Your task to perform on an android device: Open calendar and show me the third week of next month Image 0: 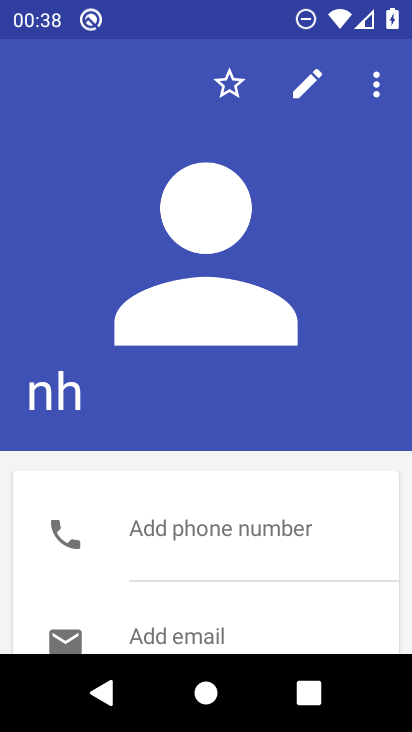
Step 0: drag from (224, 615) to (255, 384)
Your task to perform on an android device: Open calendar and show me the third week of next month Image 1: 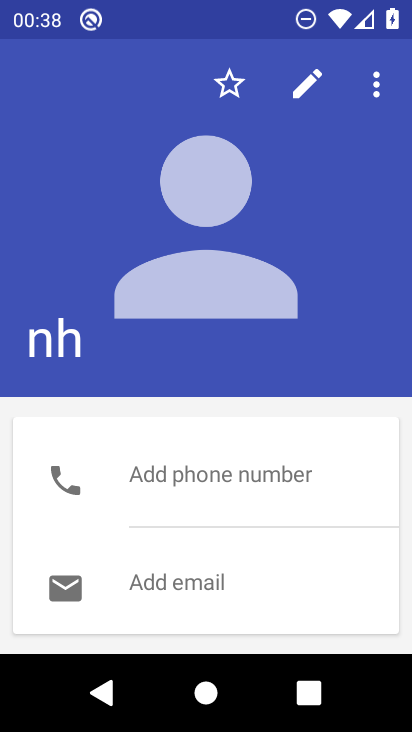
Step 1: press home button
Your task to perform on an android device: Open calendar and show me the third week of next month Image 2: 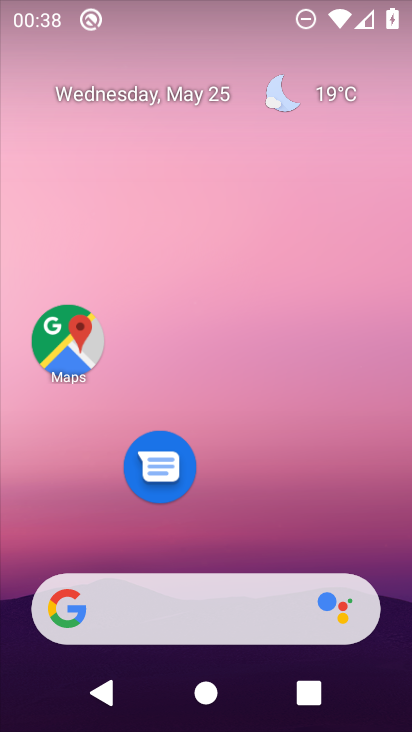
Step 2: drag from (233, 560) to (317, 63)
Your task to perform on an android device: Open calendar and show me the third week of next month Image 3: 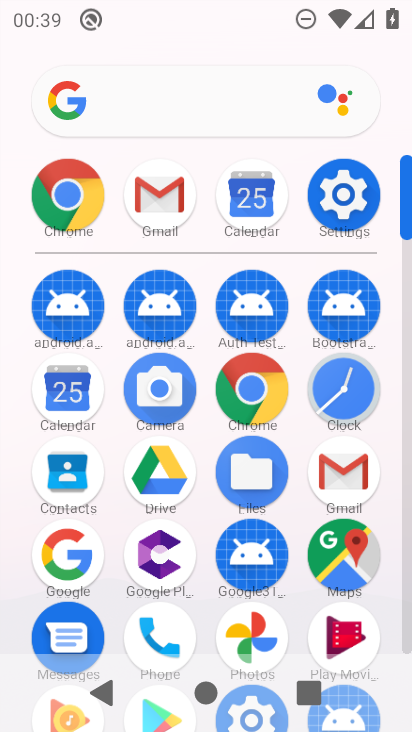
Step 3: click (51, 372)
Your task to perform on an android device: Open calendar and show me the third week of next month Image 4: 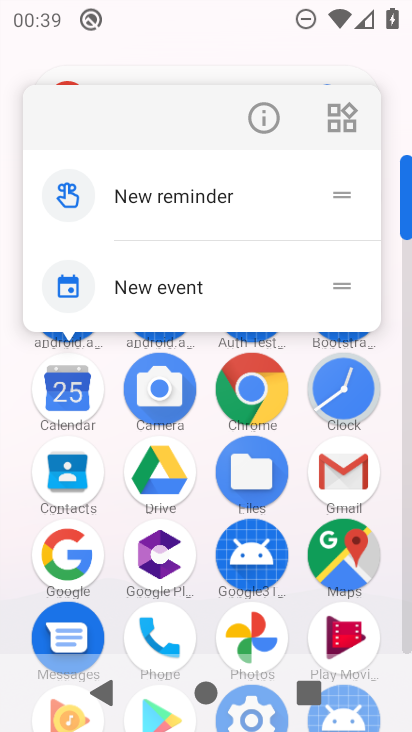
Step 4: click (273, 108)
Your task to perform on an android device: Open calendar and show me the third week of next month Image 5: 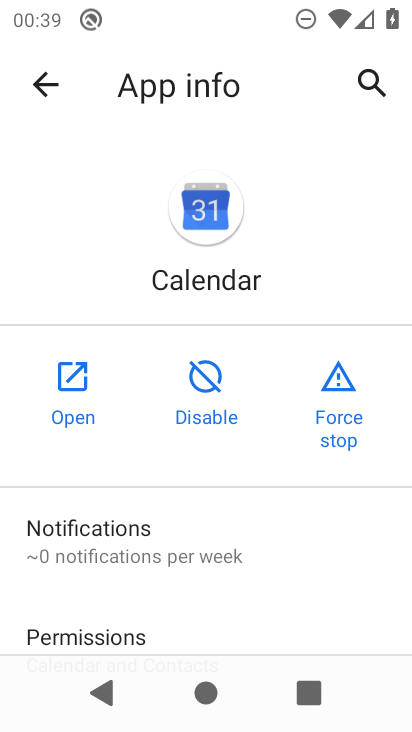
Step 5: click (87, 375)
Your task to perform on an android device: Open calendar and show me the third week of next month Image 6: 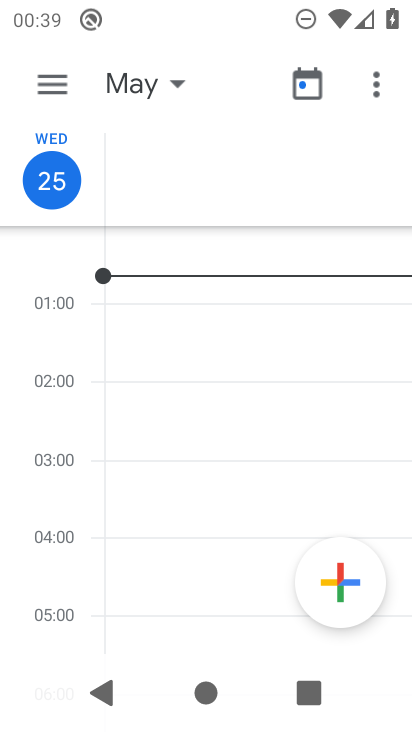
Step 6: drag from (234, 490) to (196, 621)
Your task to perform on an android device: Open calendar and show me the third week of next month Image 7: 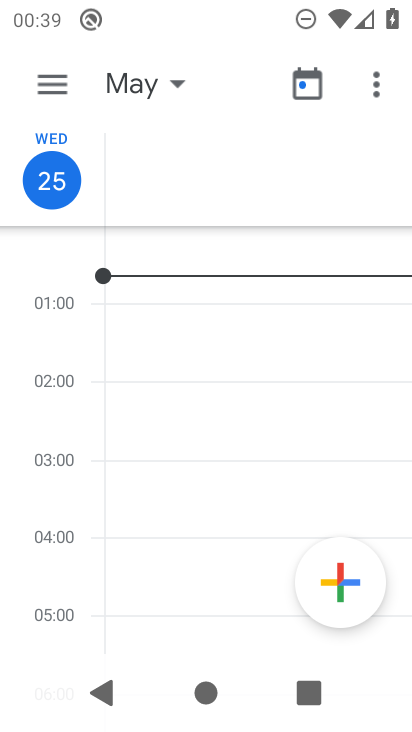
Step 7: click (158, 85)
Your task to perform on an android device: Open calendar and show me the third week of next month Image 8: 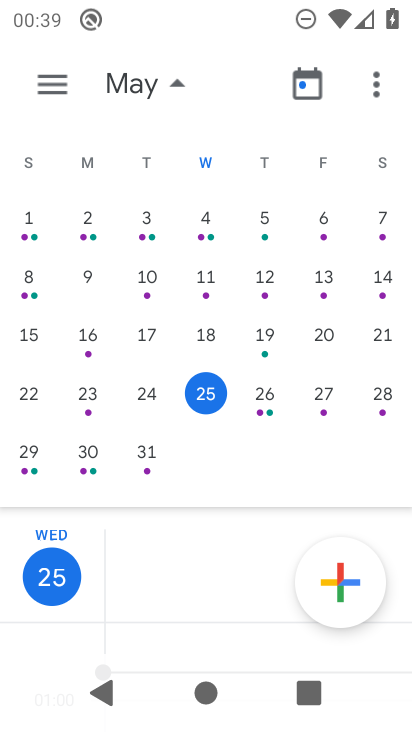
Step 8: drag from (376, 351) to (0, 359)
Your task to perform on an android device: Open calendar and show me the third week of next month Image 9: 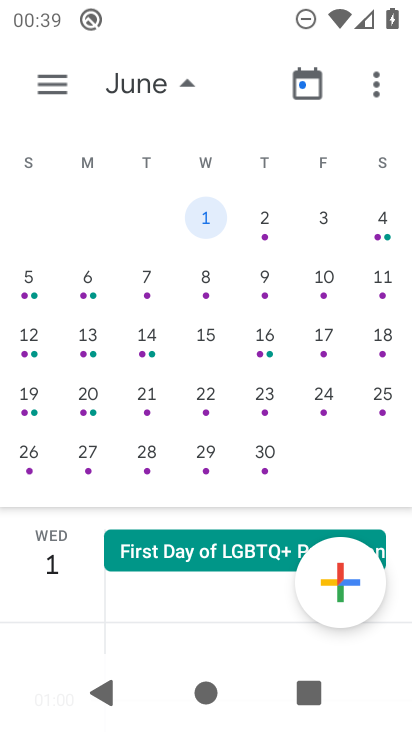
Step 9: click (265, 346)
Your task to perform on an android device: Open calendar and show me the third week of next month Image 10: 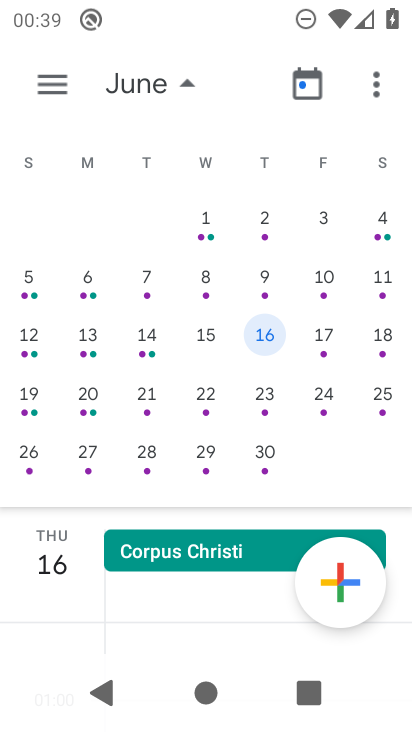
Step 10: task complete